Your task to perform on an android device: move an email to a new category in the gmail app Image 0: 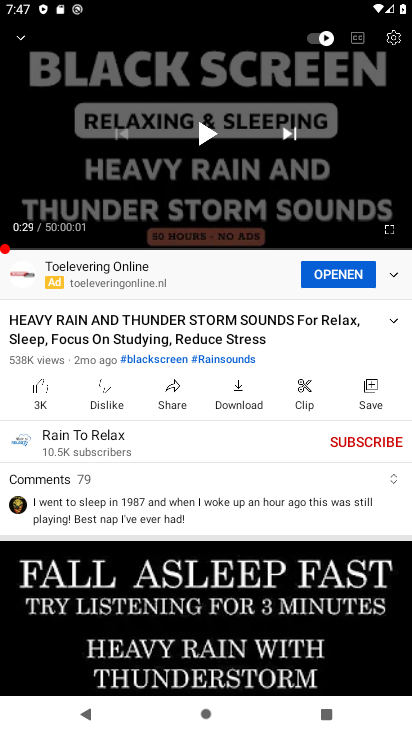
Step 0: press home button
Your task to perform on an android device: move an email to a new category in the gmail app Image 1: 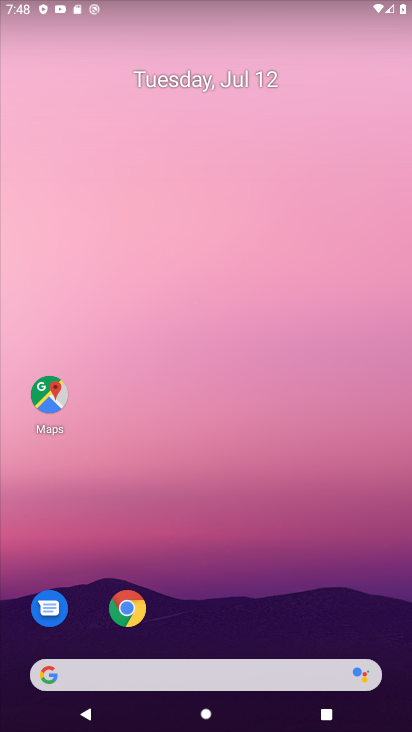
Step 1: drag from (215, 681) to (323, 322)
Your task to perform on an android device: move an email to a new category in the gmail app Image 2: 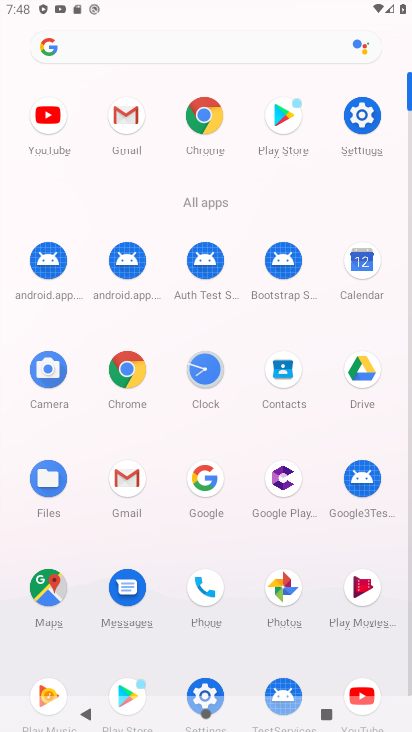
Step 2: click (131, 115)
Your task to perform on an android device: move an email to a new category in the gmail app Image 3: 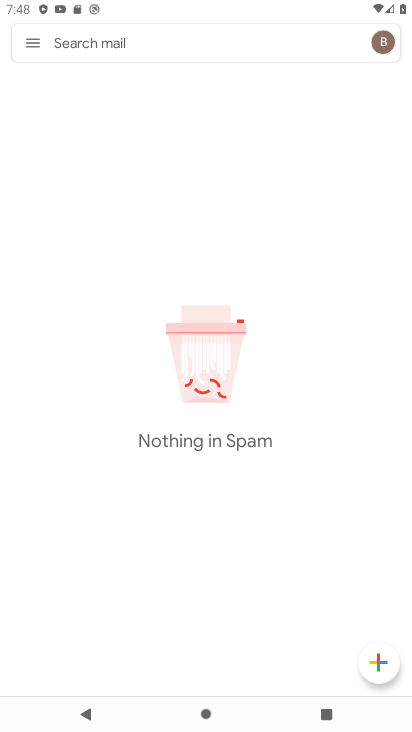
Step 3: click (36, 41)
Your task to perform on an android device: move an email to a new category in the gmail app Image 4: 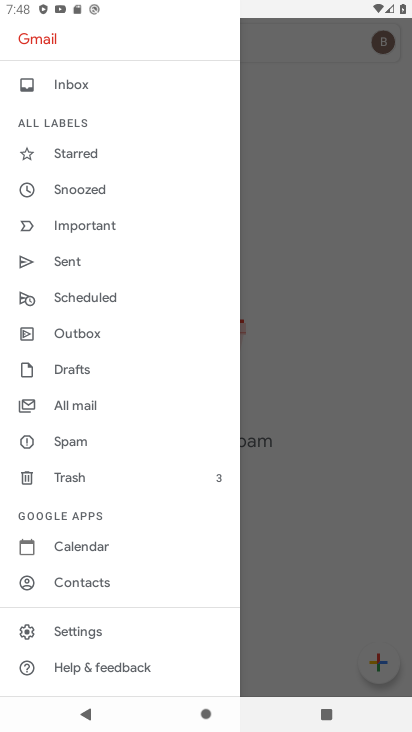
Step 4: click (91, 79)
Your task to perform on an android device: move an email to a new category in the gmail app Image 5: 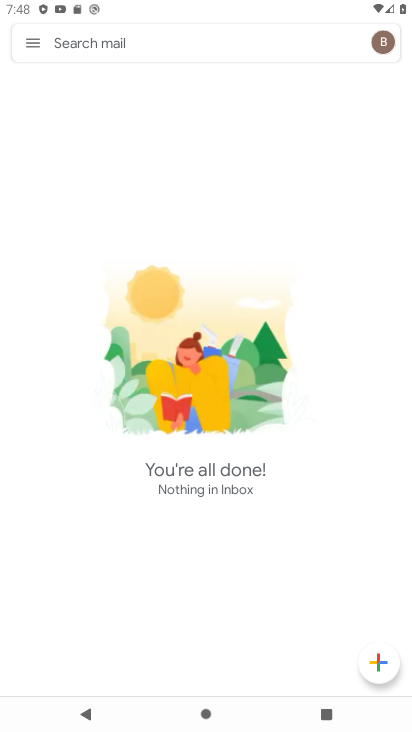
Step 5: task complete